Your task to perform on an android device: Open settings Image 0: 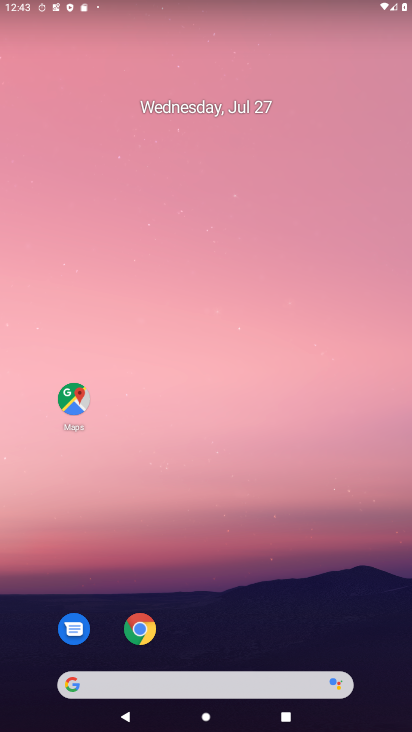
Step 0: drag from (359, 633) to (183, 104)
Your task to perform on an android device: Open settings Image 1: 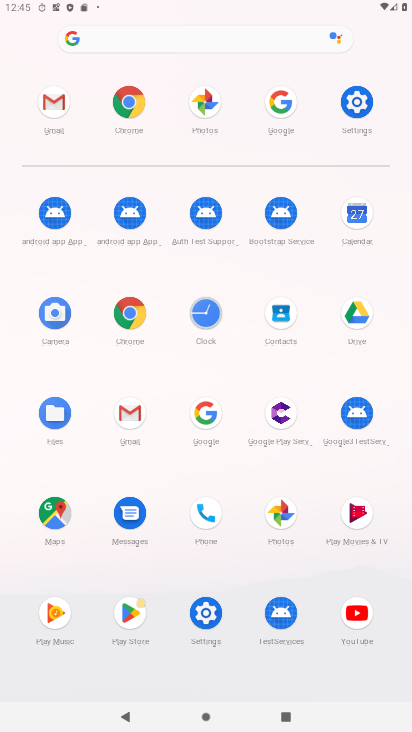
Step 1: click (202, 619)
Your task to perform on an android device: Open settings Image 2: 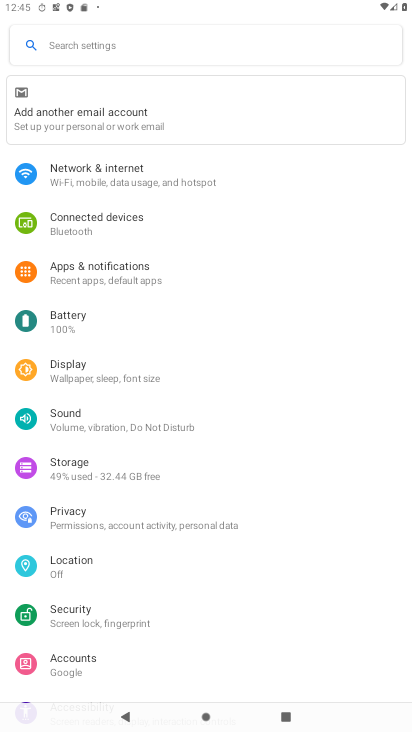
Step 2: task complete